Your task to perform on an android device: Show me productivity apps on the Play Store Image 0: 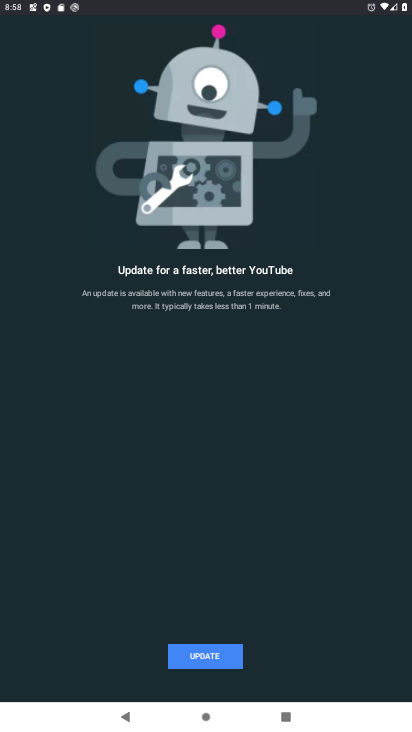
Step 0: press home button
Your task to perform on an android device: Show me productivity apps on the Play Store Image 1: 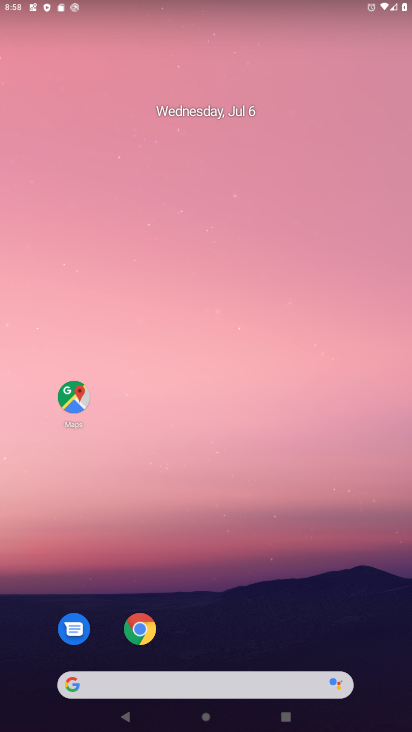
Step 1: drag from (7, 596) to (339, 0)
Your task to perform on an android device: Show me productivity apps on the Play Store Image 2: 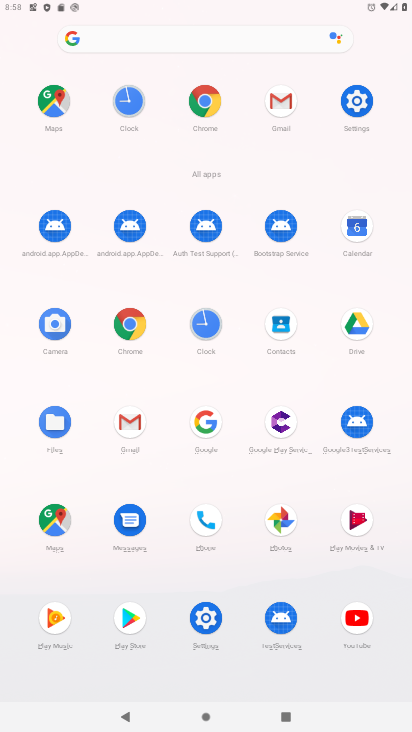
Step 2: click (126, 620)
Your task to perform on an android device: Show me productivity apps on the Play Store Image 3: 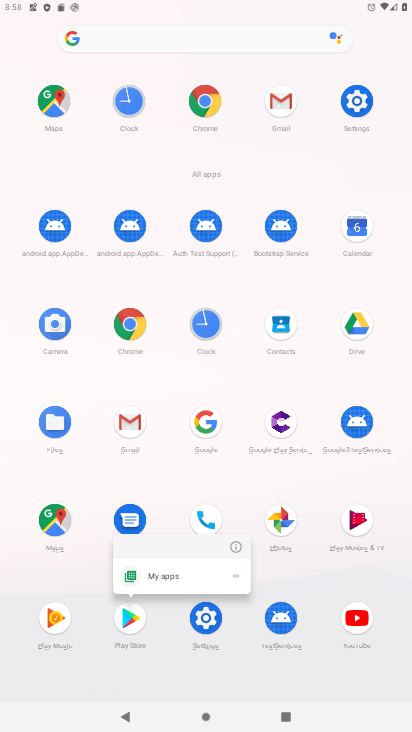
Step 3: click (131, 614)
Your task to perform on an android device: Show me productivity apps on the Play Store Image 4: 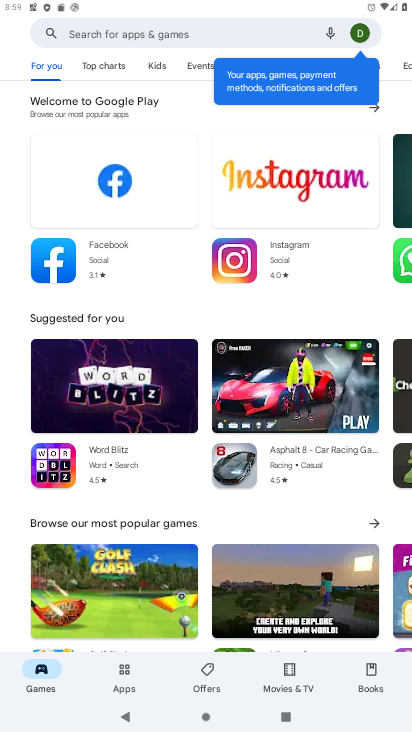
Step 4: task complete